Your task to perform on an android device: toggle airplane mode Image 0: 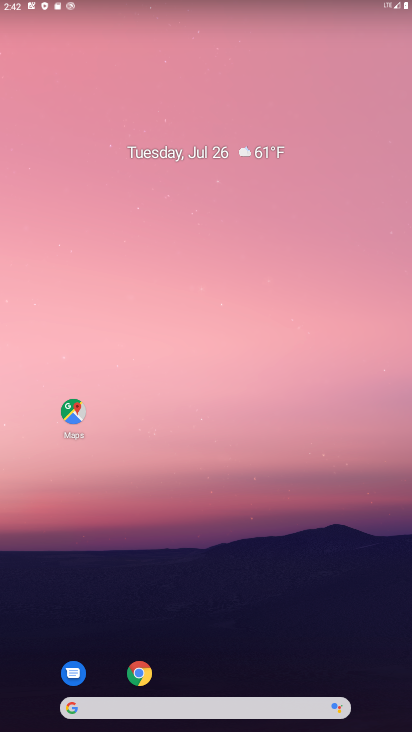
Step 0: drag from (195, 611) to (282, 57)
Your task to perform on an android device: toggle airplane mode Image 1: 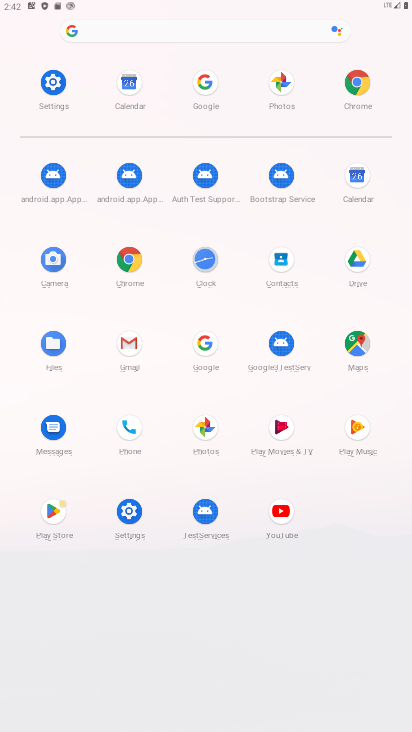
Step 1: drag from (178, 436) to (175, 289)
Your task to perform on an android device: toggle airplane mode Image 2: 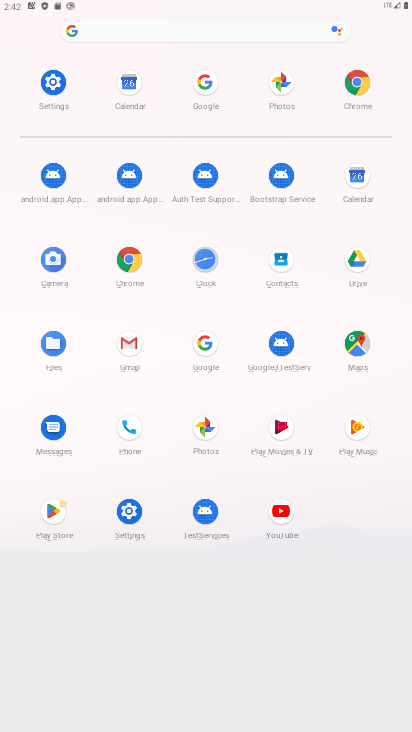
Step 2: click (129, 516)
Your task to perform on an android device: toggle airplane mode Image 3: 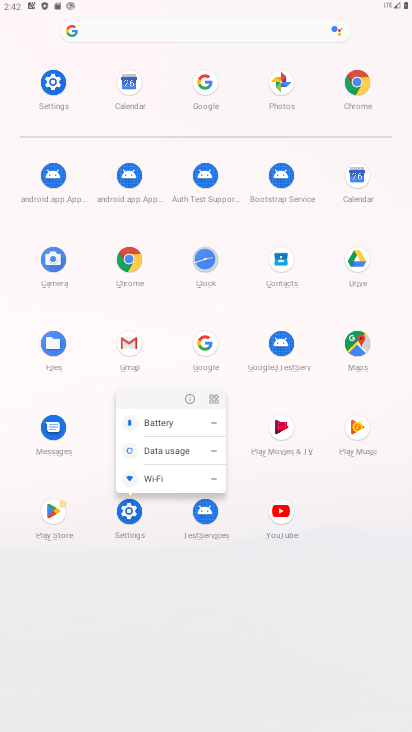
Step 3: click (184, 399)
Your task to perform on an android device: toggle airplane mode Image 4: 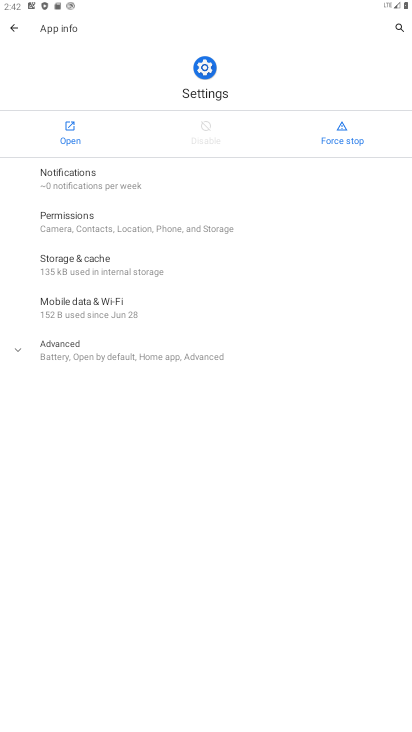
Step 4: click (72, 118)
Your task to perform on an android device: toggle airplane mode Image 5: 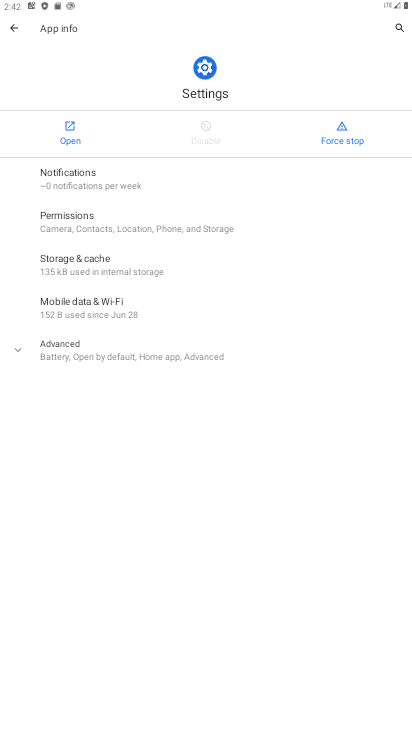
Step 5: click (71, 118)
Your task to perform on an android device: toggle airplane mode Image 6: 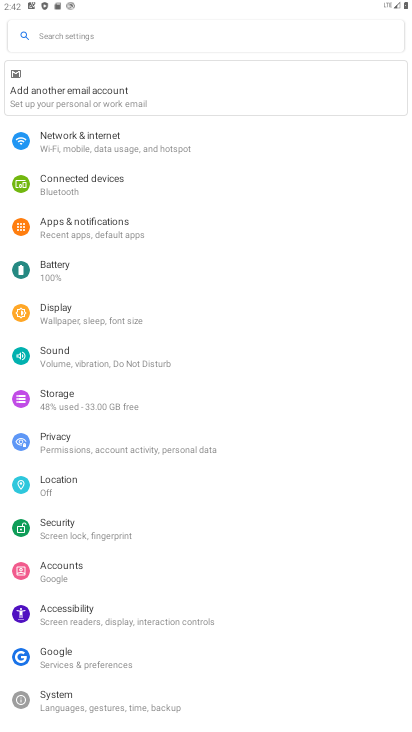
Step 6: click (125, 128)
Your task to perform on an android device: toggle airplane mode Image 7: 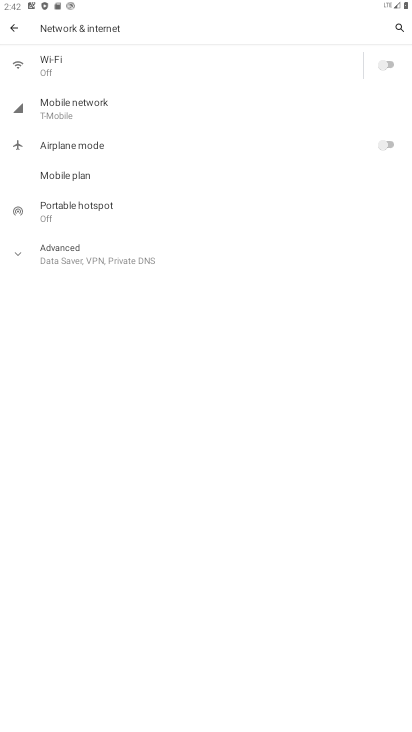
Step 7: click (80, 258)
Your task to perform on an android device: toggle airplane mode Image 8: 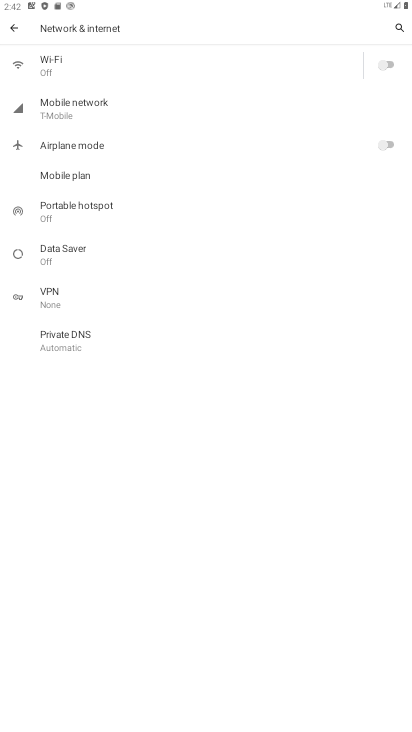
Step 8: click (89, 145)
Your task to perform on an android device: toggle airplane mode Image 9: 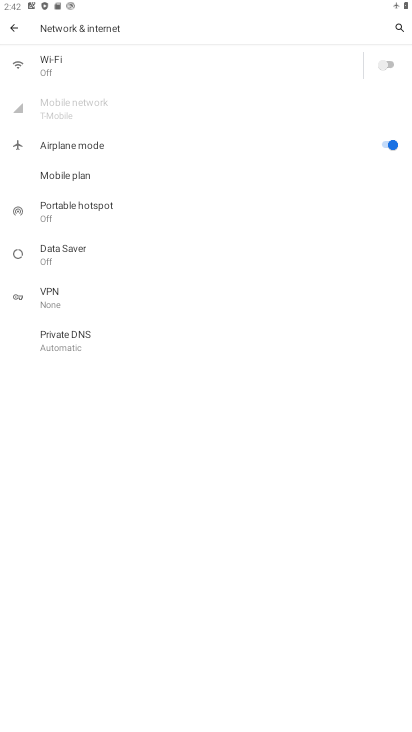
Step 9: task complete